Your task to perform on an android device: Open calendar and show me the first week of next month Image 0: 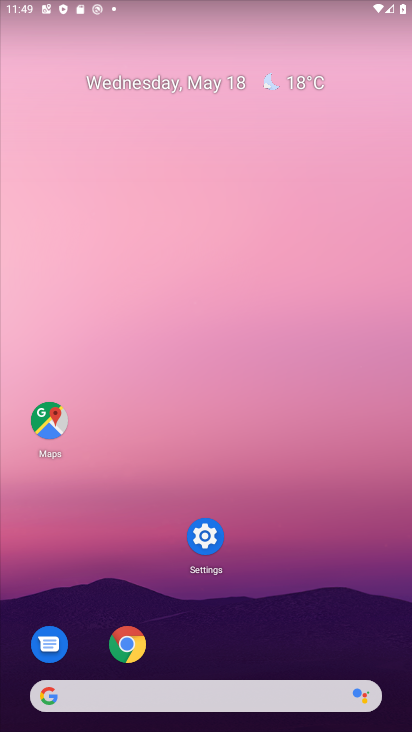
Step 0: drag from (360, 619) to (299, 86)
Your task to perform on an android device: Open calendar and show me the first week of next month Image 1: 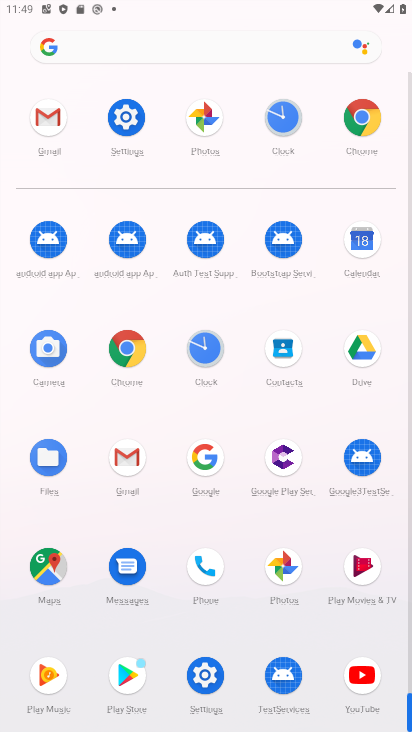
Step 1: click (362, 235)
Your task to perform on an android device: Open calendar and show me the first week of next month Image 2: 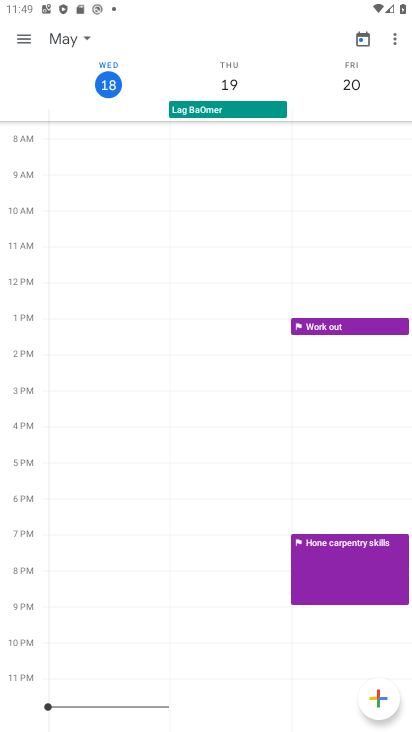
Step 2: click (25, 43)
Your task to perform on an android device: Open calendar and show me the first week of next month Image 3: 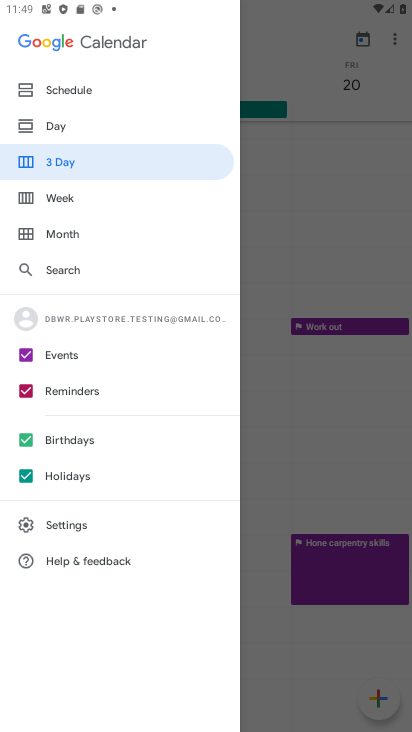
Step 3: click (63, 190)
Your task to perform on an android device: Open calendar and show me the first week of next month Image 4: 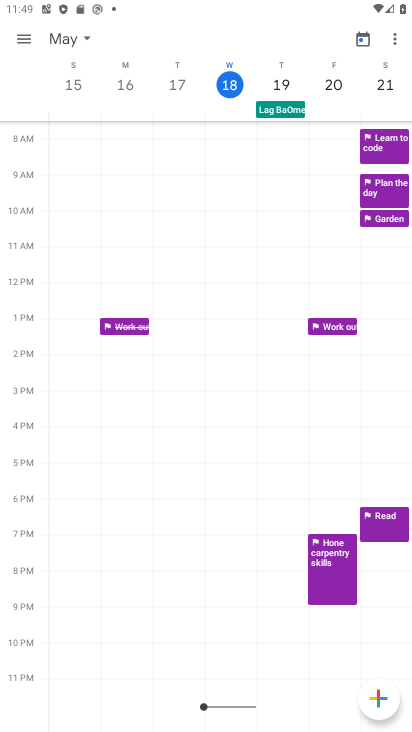
Step 4: click (364, 82)
Your task to perform on an android device: Open calendar and show me the first week of next month Image 5: 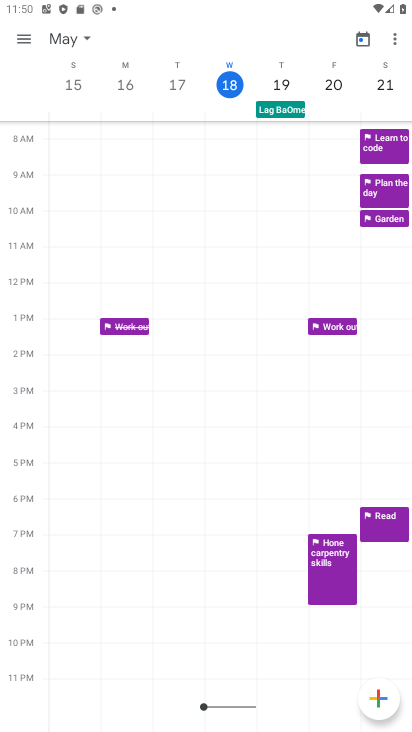
Step 5: click (80, 31)
Your task to perform on an android device: Open calendar and show me the first week of next month Image 6: 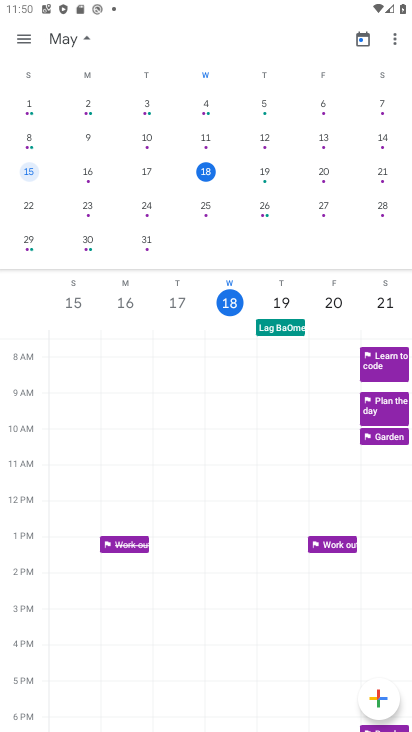
Step 6: drag from (325, 157) to (4, 149)
Your task to perform on an android device: Open calendar and show me the first week of next month Image 7: 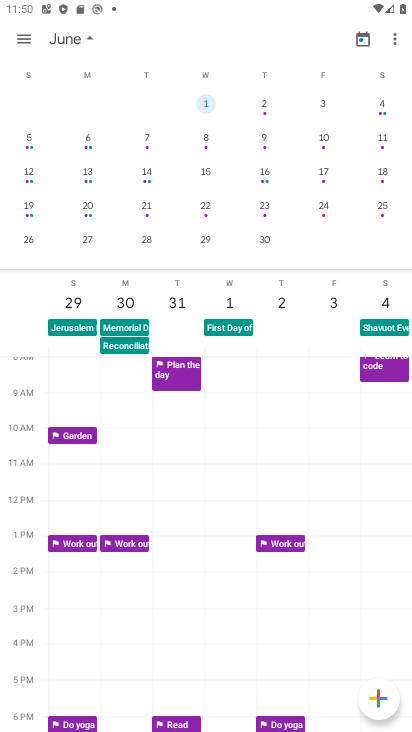
Step 7: click (32, 142)
Your task to perform on an android device: Open calendar and show me the first week of next month Image 8: 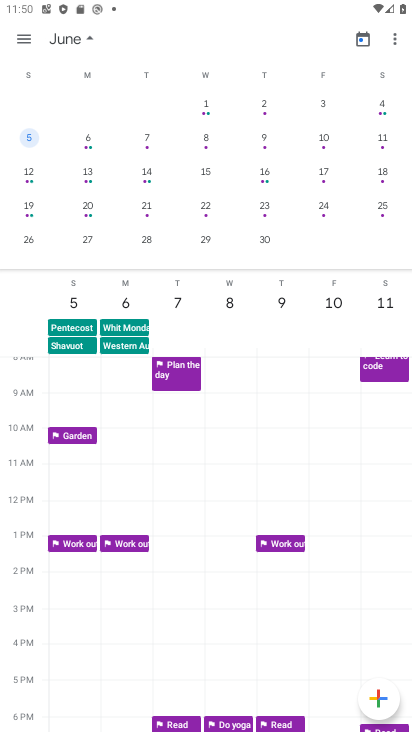
Step 8: drag from (93, 306) to (407, 312)
Your task to perform on an android device: Open calendar and show me the first week of next month Image 9: 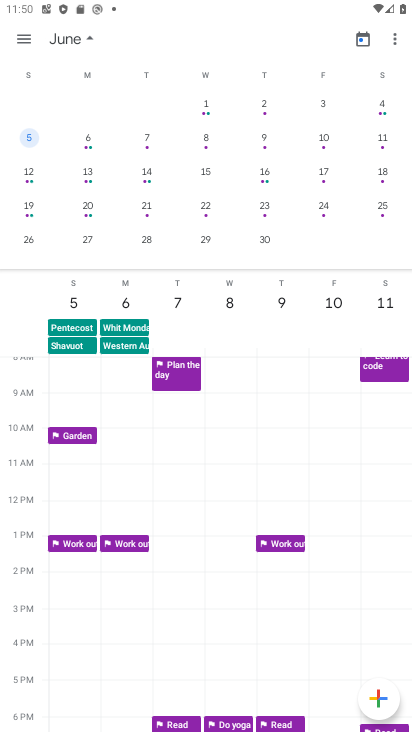
Step 9: drag from (95, 305) to (410, 317)
Your task to perform on an android device: Open calendar and show me the first week of next month Image 10: 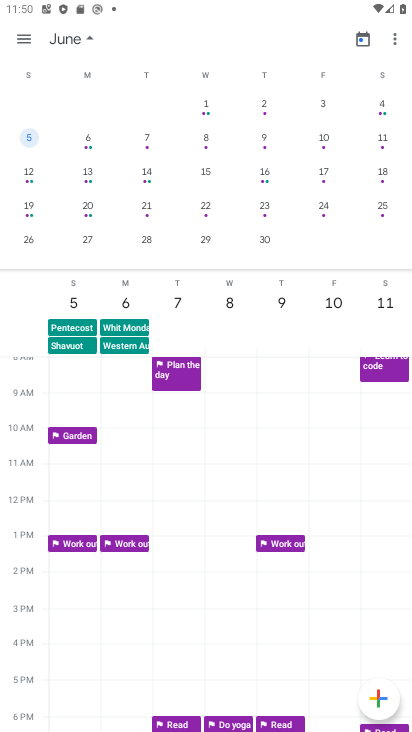
Step 10: click (265, 105)
Your task to perform on an android device: Open calendar and show me the first week of next month Image 11: 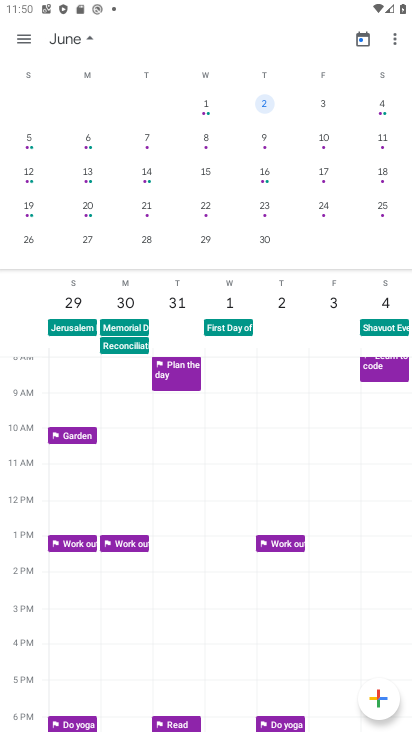
Step 11: task complete